Your task to perform on an android device: turn off data saver in the chrome app Image 0: 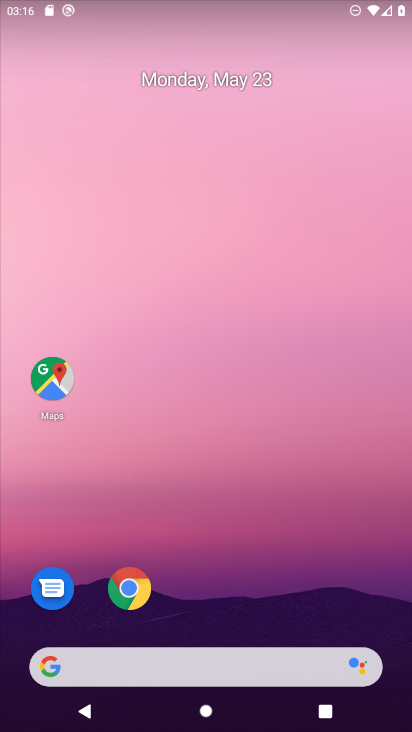
Step 0: click (124, 592)
Your task to perform on an android device: turn off data saver in the chrome app Image 1: 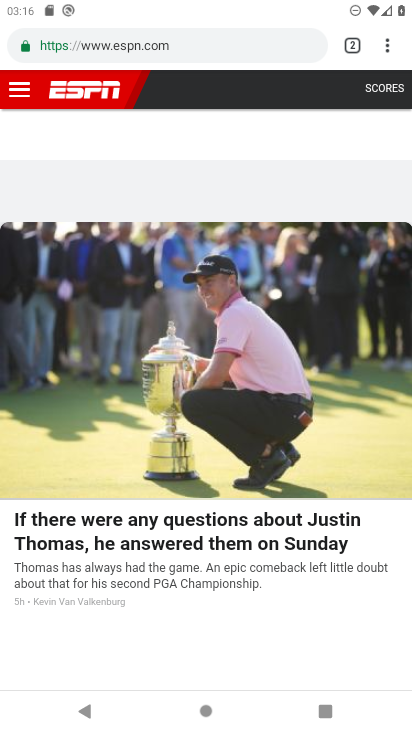
Step 1: click (389, 49)
Your task to perform on an android device: turn off data saver in the chrome app Image 2: 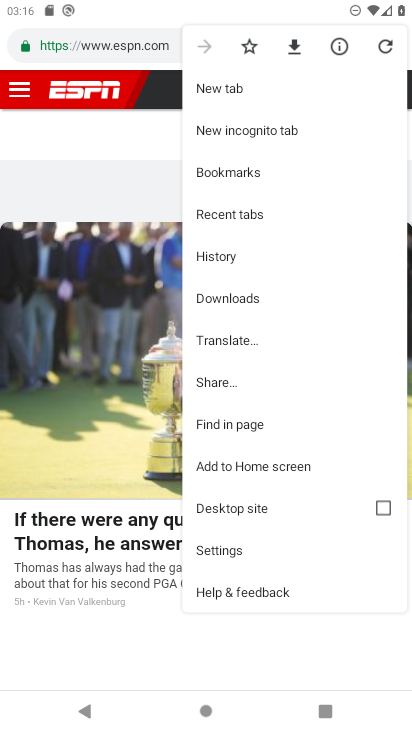
Step 2: click (226, 547)
Your task to perform on an android device: turn off data saver in the chrome app Image 3: 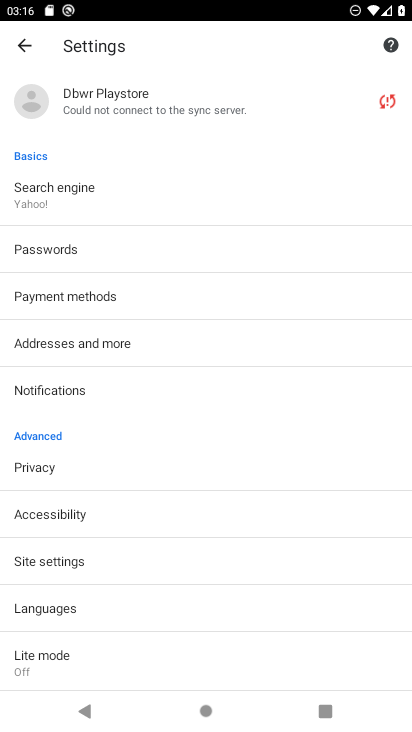
Step 3: click (42, 654)
Your task to perform on an android device: turn off data saver in the chrome app Image 4: 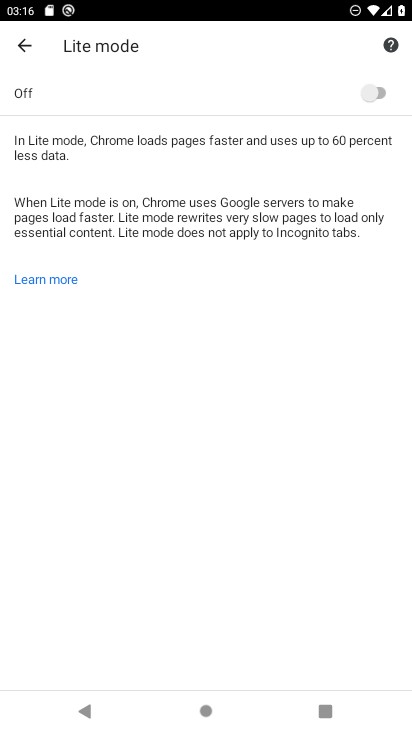
Step 4: task complete